Your task to perform on an android device: turn off airplane mode Image 0: 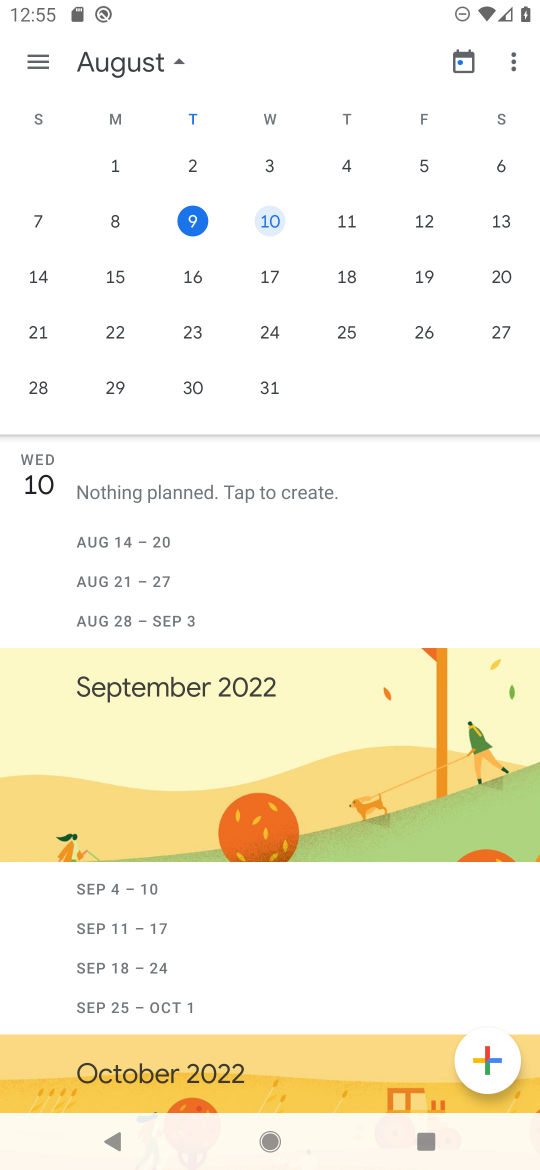
Step 0: drag from (491, 2) to (195, 690)
Your task to perform on an android device: turn off airplane mode Image 1: 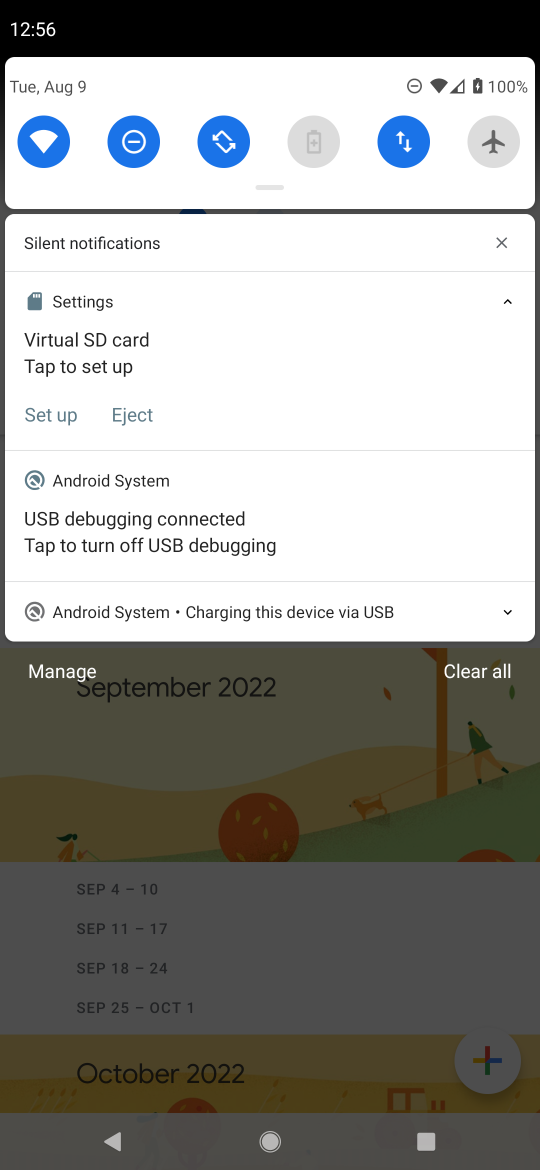
Step 1: task complete